Your task to perform on an android device: toggle translation in the chrome app Image 0: 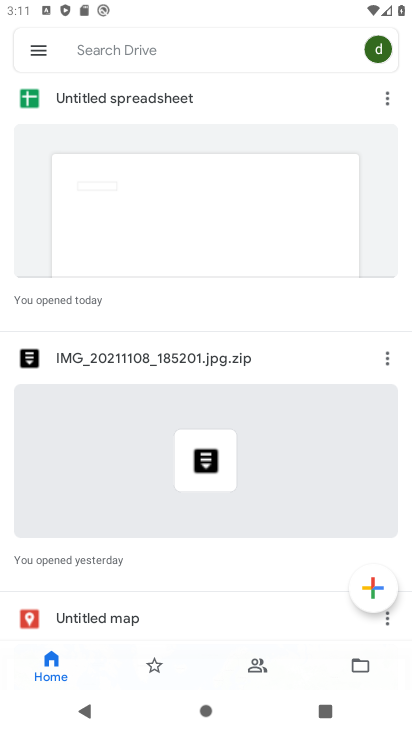
Step 0: press home button
Your task to perform on an android device: toggle translation in the chrome app Image 1: 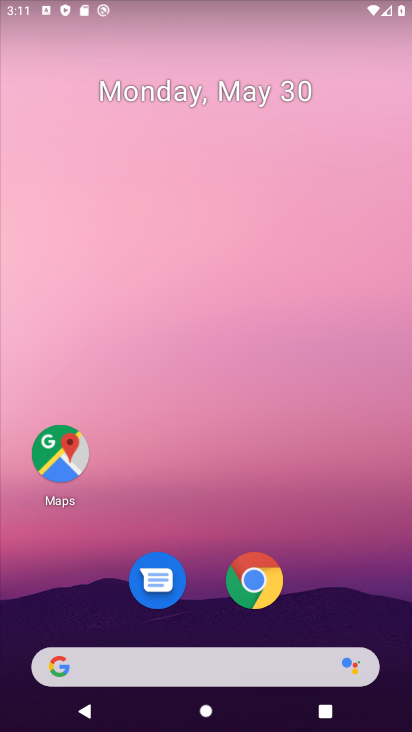
Step 1: click (258, 585)
Your task to perform on an android device: toggle translation in the chrome app Image 2: 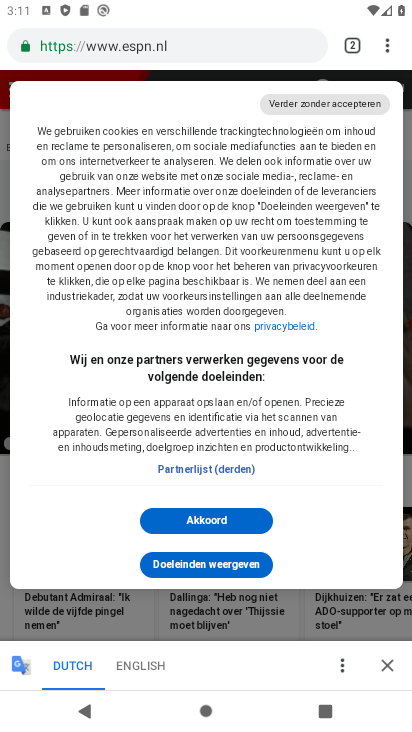
Step 2: click (374, 45)
Your task to perform on an android device: toggle translation in the chrome app Image 3: 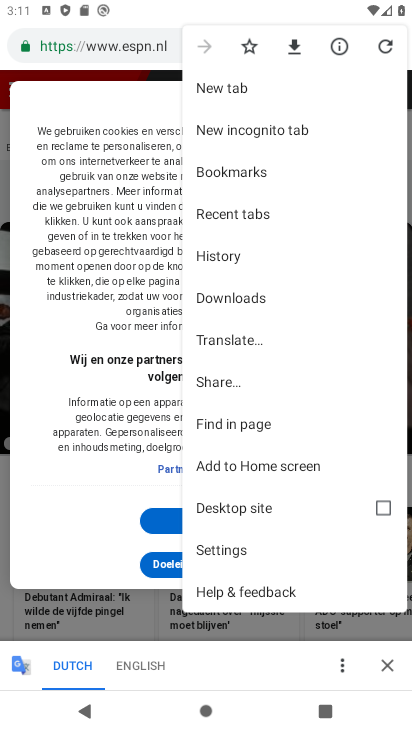
Step 3: click (252, 550)
Your task to perform on an android device: toggle translation in the chrome app Image 4: 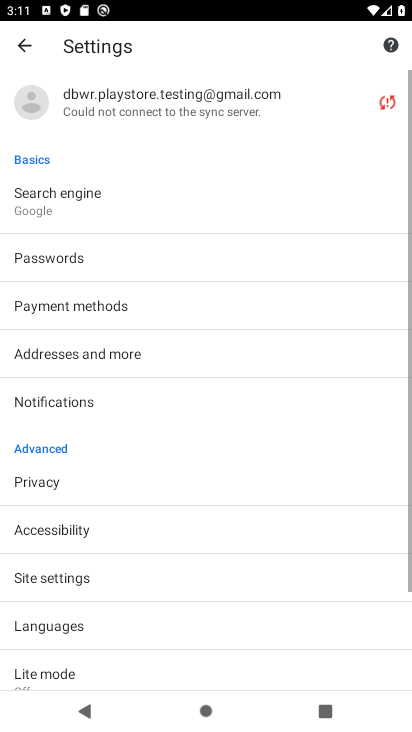
Step 4: drag from (146, 592) to (166, 262)
Your task to perform on an android device: toggle translation in the chrome app Image 5: 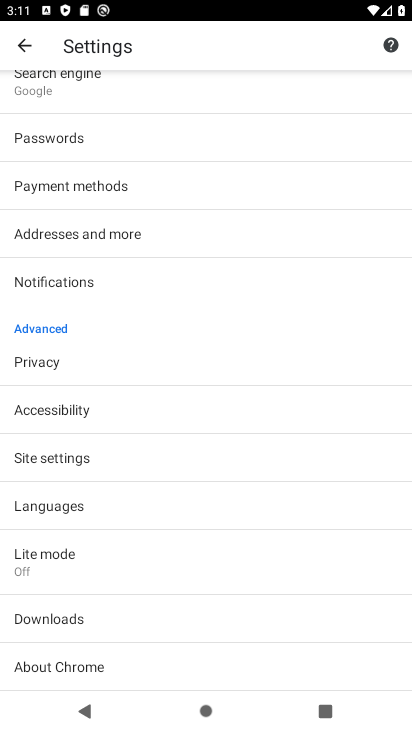
Step 5: click (62, 508)
Your task to perform on an android device: toggle translation in the chrome app Image 6: 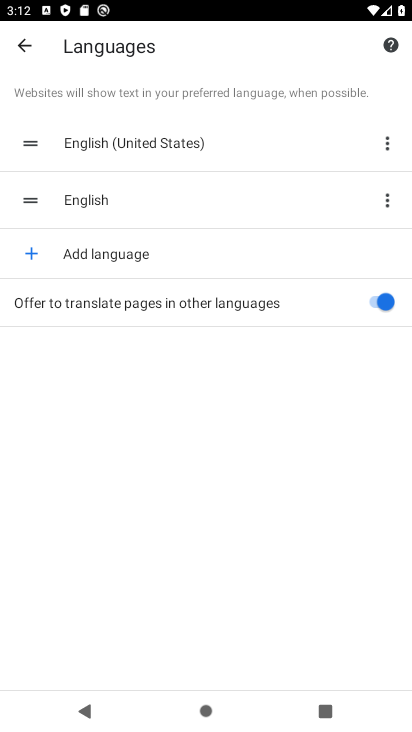
Step 6: click (368, 296)
Your task to perform on an android device: toggle translation in the chrome app Image 7: 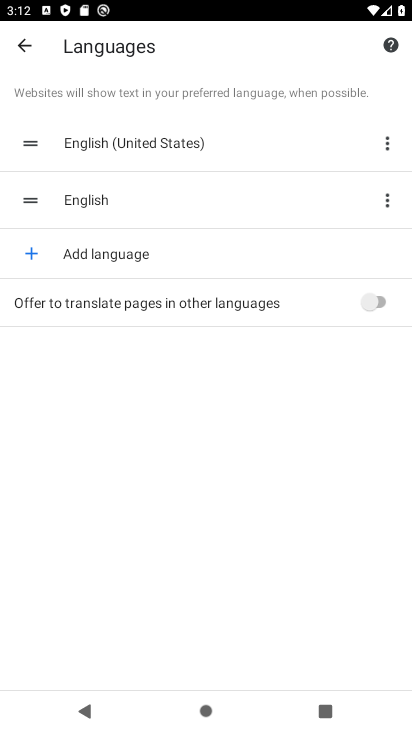
Step 7: task complete